Your task to perform on an android device: change alarm snooze length Image 0: 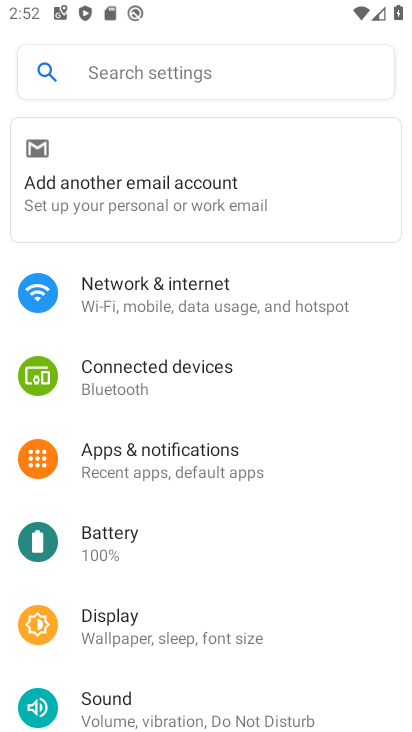
Step 0: press home button
Your task to perform on an android device: change alarm snooze length Image 1: 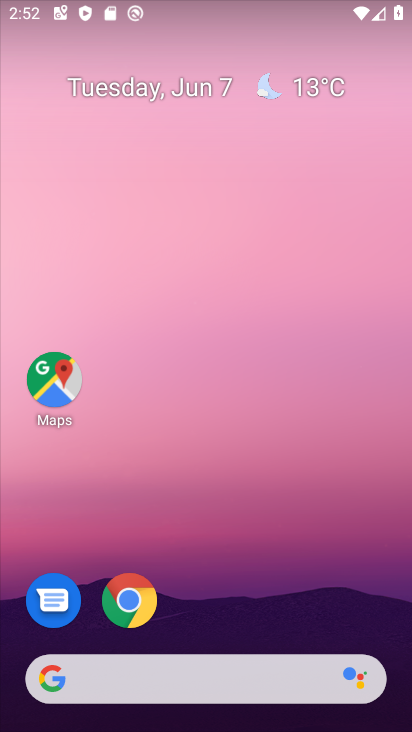
Step 1: drag from (210, 617) to (137, 307)
Your task to perform on an android device: change alarm snooze length Image 2: 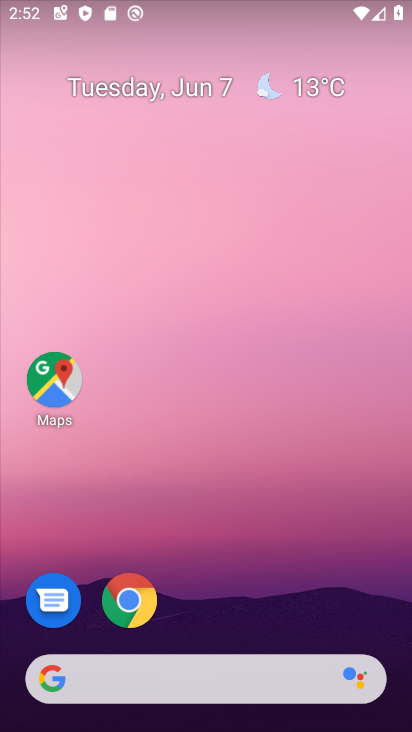
Step 2: drag from (240, 583) to (232, 254)
Your task to perform on an android device: change alarm snooze length Image 3: 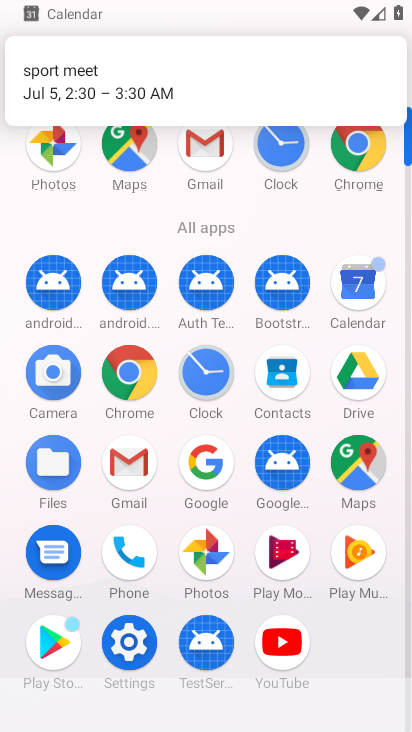
Step 3: click (199, 372)
Your task to perform on an android device: change alarm snooze length Image 4: 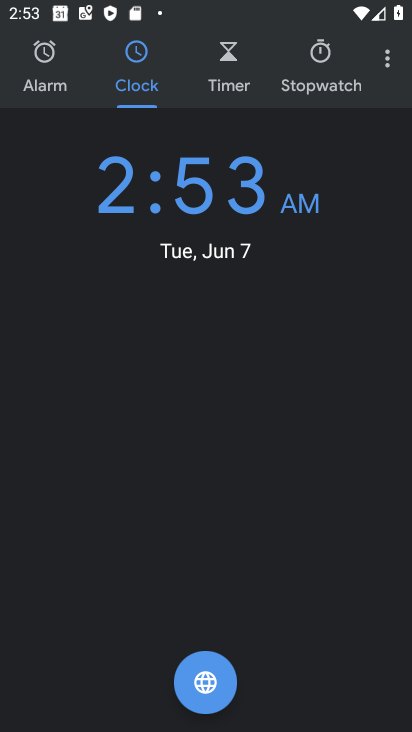
Step 4: click (391, 59)
Your task to perform on an android device: change alarm snooze length Image 5: 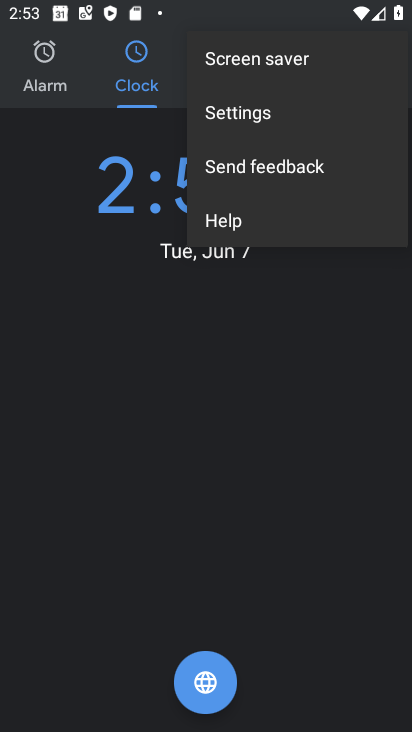
Step 5: click (316, 127)
Your task to perform on an android device: change alarm snooze length Image 6: 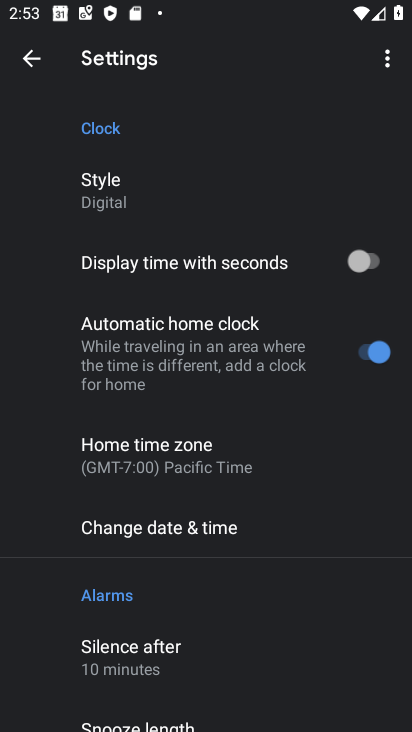
Step 6: drag from (153, 723) to (151, 601)
Your task to perform on an android device: change alarm snooze length Image 7: 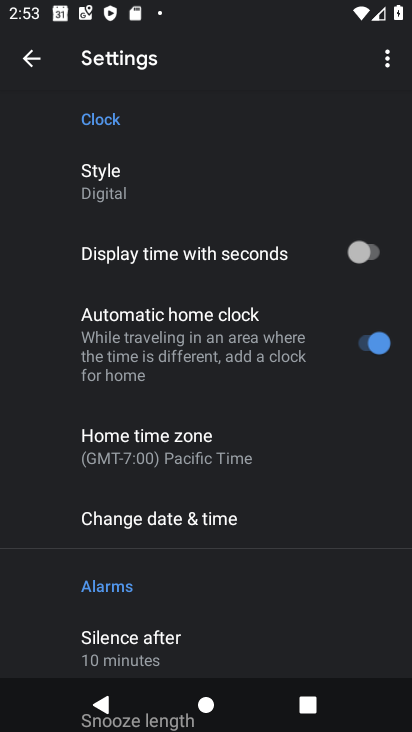
Step 7: drag from (136, 642) to (150, 542)
Your task to perform on an android device: change alarm snooze length Image 8: 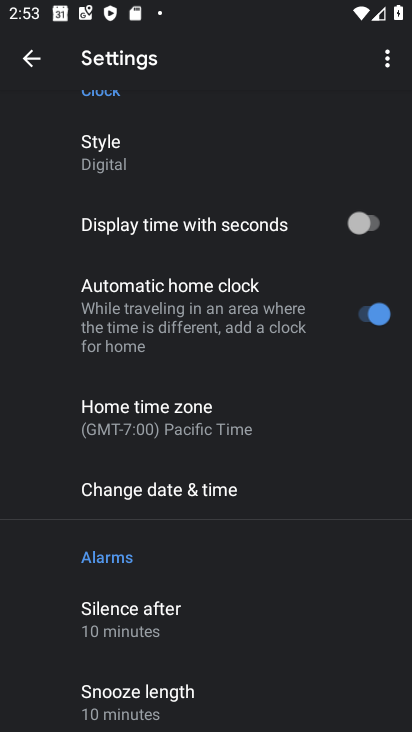
Step 8: click (145, 697)
Your task to perform on an android device: change alarm snooze length Image 9: 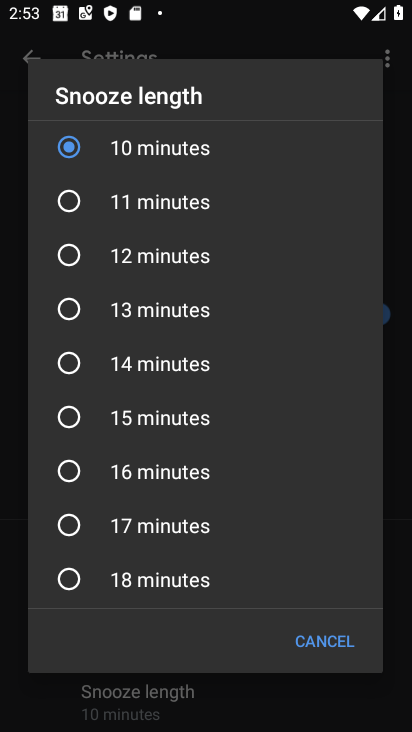
Step 9: click (69, 208)
Your task to perform on an android device: change alarm snooze length Image 10: 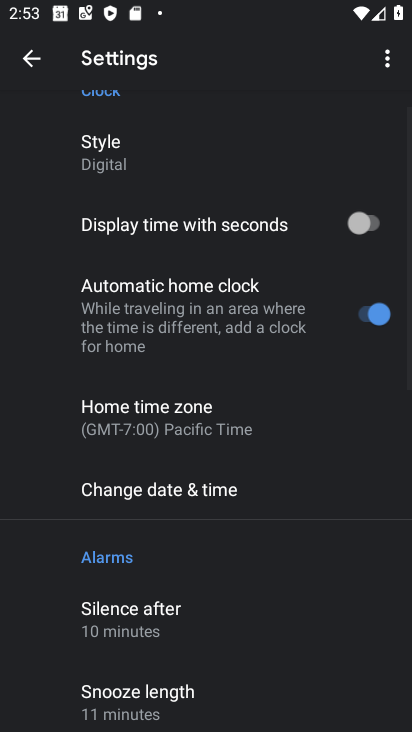
Step 10: task complete